Your task to perform on an android device: refresh tabs in the chrome app Image 0: 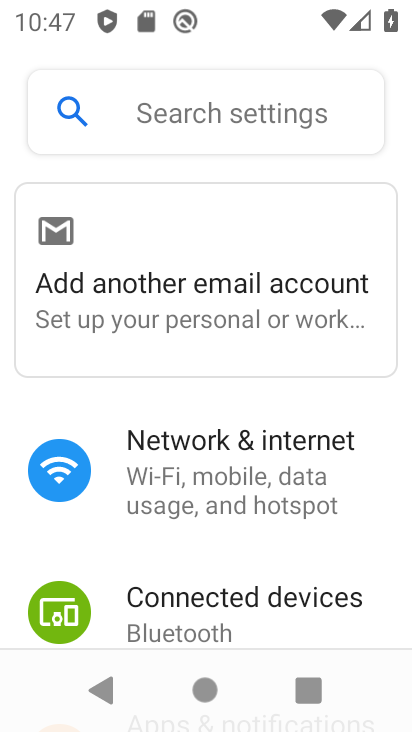
Step 0: press home button
Your task to perform on an android device: refresh tabs in the chrome app Image 1: 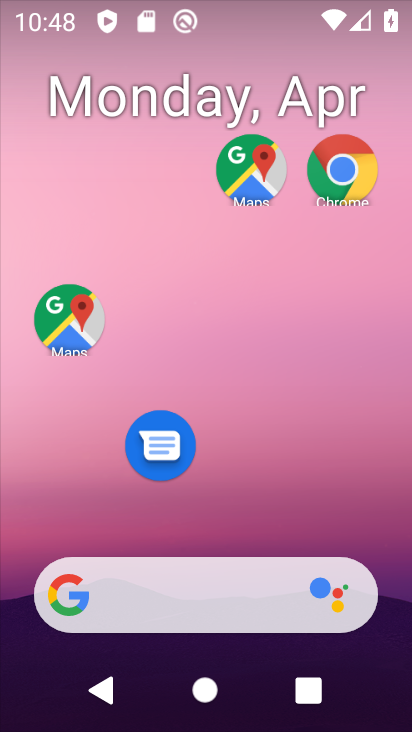
Step 1: click (349, 175)
Your task to perform on an android device: refresh tabs in the chrome app Image 2: 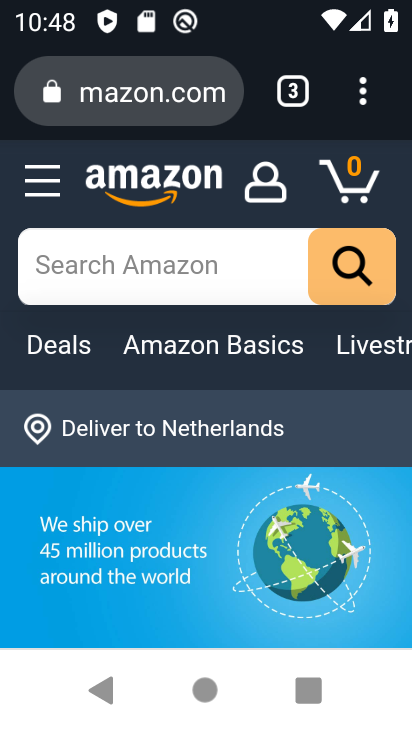
Step 2: click (368, 86)
Your task to perform on an android device: refresh tabs in the chrome app Image 3: 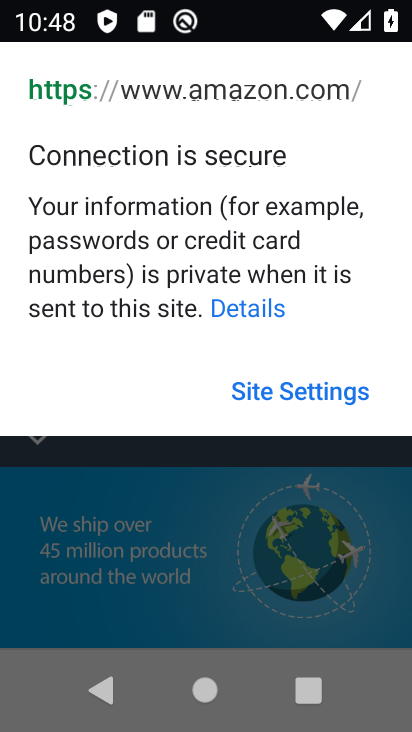
Step 3: click (376, 470)
Your task to perform on an android device: refresh tabs in the chrome app Image 4: 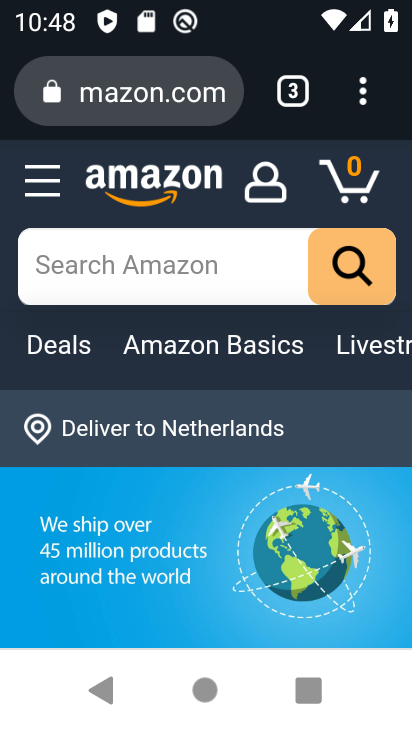
Step 4: click (376, 98)
Your task to perform on an android device: refresh tabs in the chrome app Image 5: 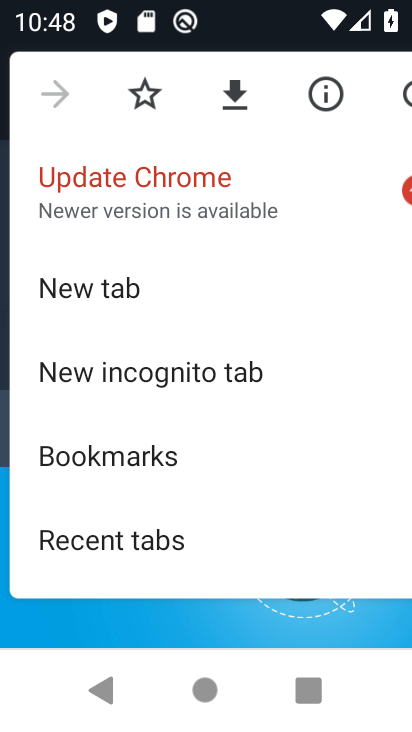
Step 5: click (409, 102)
Your task to perform on an android device: refresh tabs in the chrome app Image 6: 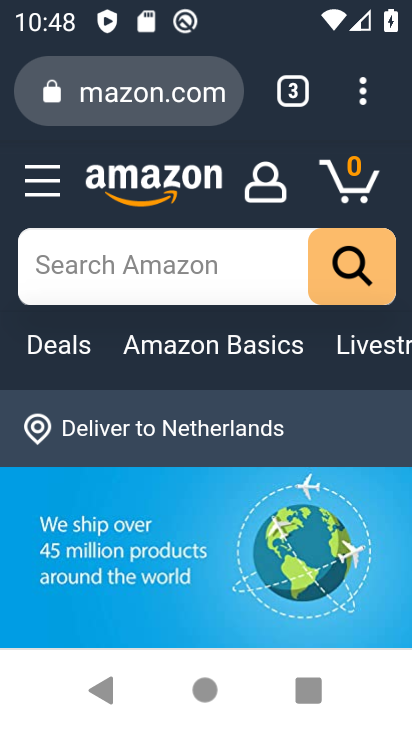
Step 6: task complete